Your task to perform on an android device: What's the weather today? Image 0: 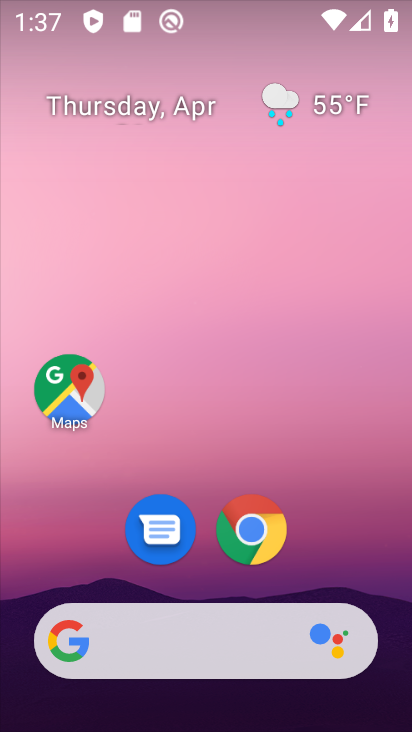
Step 0: drag from (335, 402) to (315, 230)
Your task to perform on an android device: What's the weather today? Image 1: 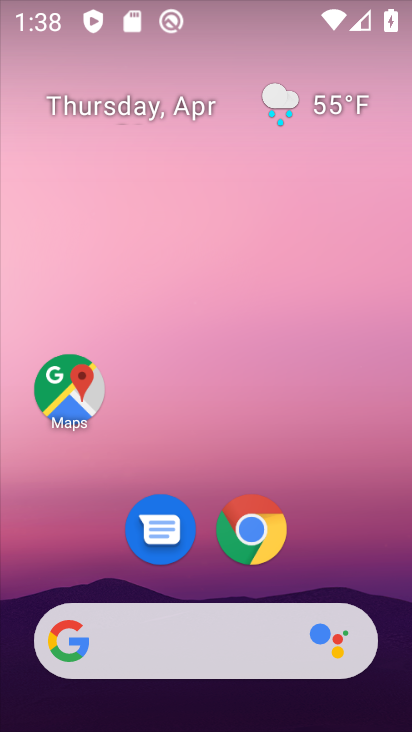
Step 1: drag from (211, 485) to (236, 206)
Your task to perform on an android device: What's the weather today? Image 2: 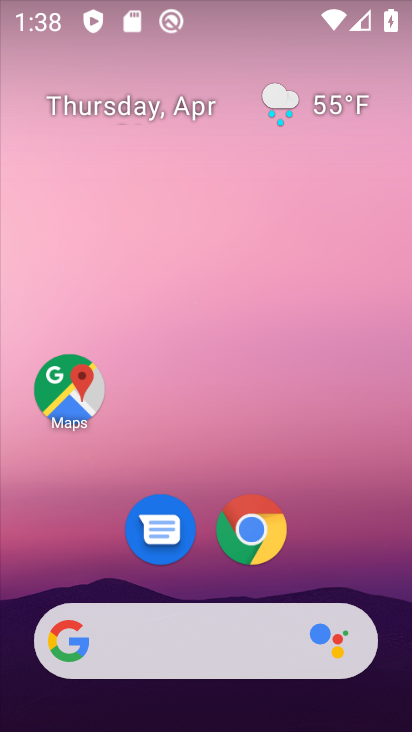
Step 2: drag from (203, 526) to (277, 207)
Your task to perform on an android device: What's the weather today? Image 3: 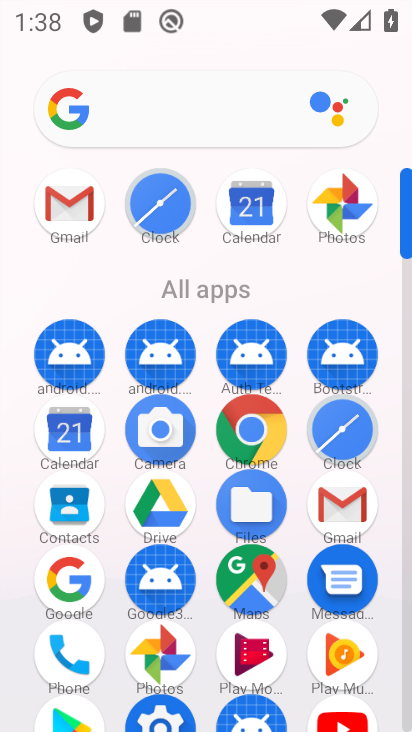
Step 3: press back button
Your task to perform on an android device: What's the weather today? Image 4: 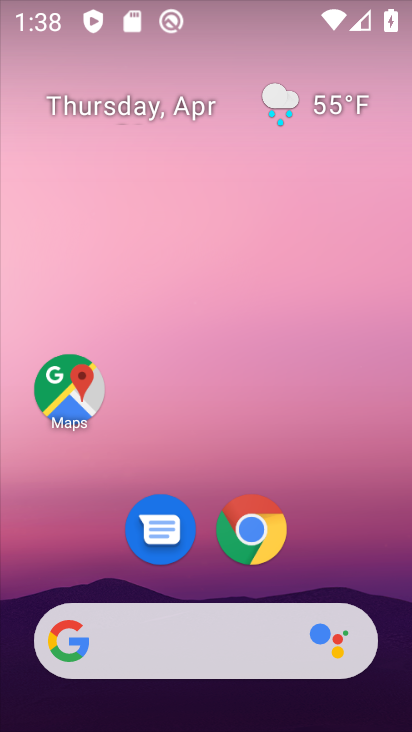
Step 4: click (330, 97)
Your task to perform on an android device: What's the weather today? Image 5: 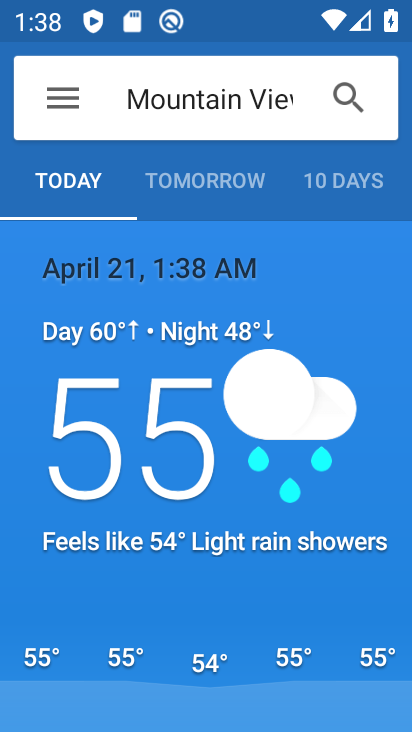
Step 5: task complete